Your task to perform on an android device: Search for good Greek restaurants Image 0: 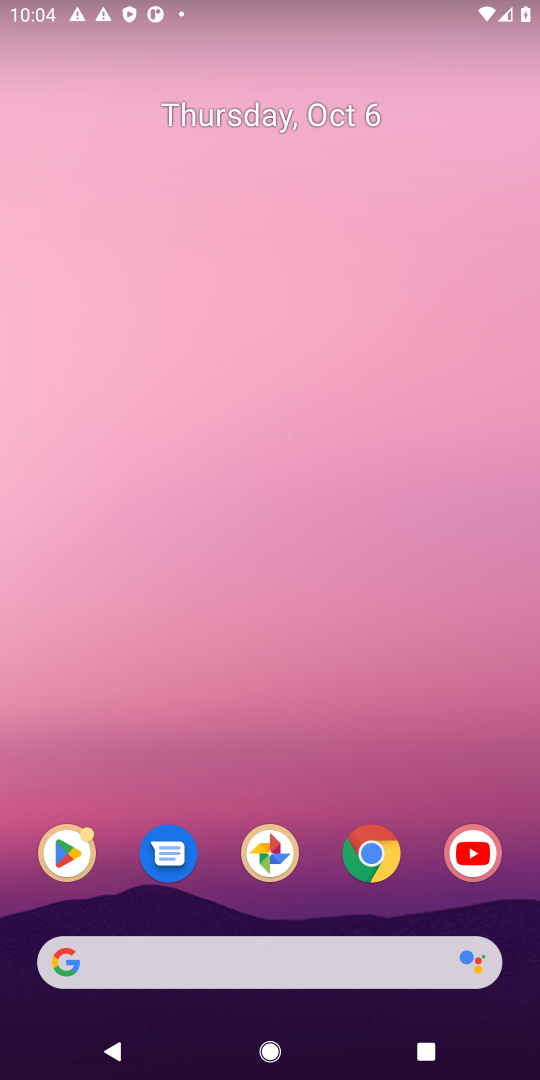
Step 0: click (271, 972)
Your task to perform on an android device: Search for good Greek restaurants Image 1: 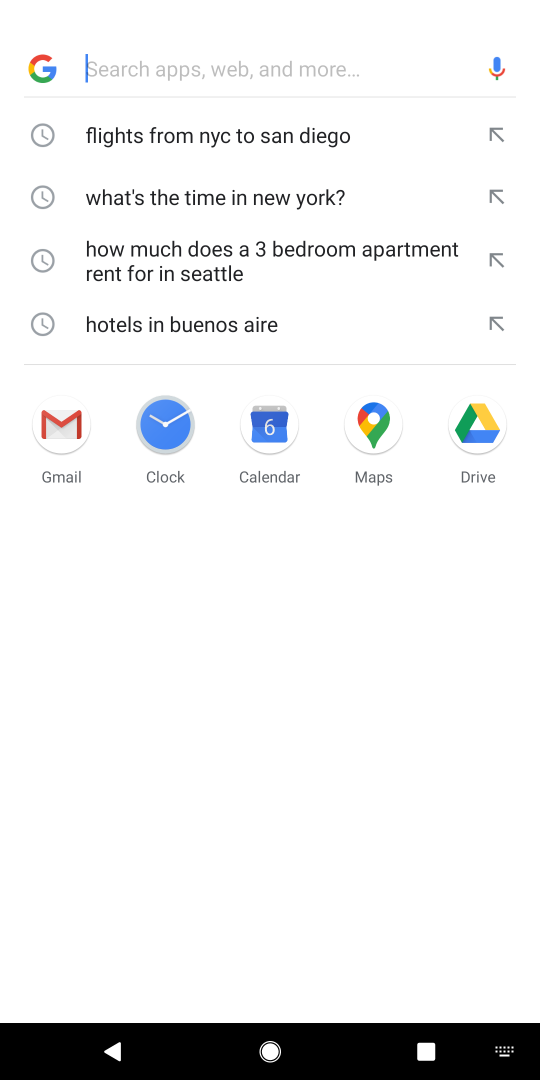
Step 1: type "good greek restaurants"
Your task to perform on an android device: Search for good Greek restaurants Image 2: 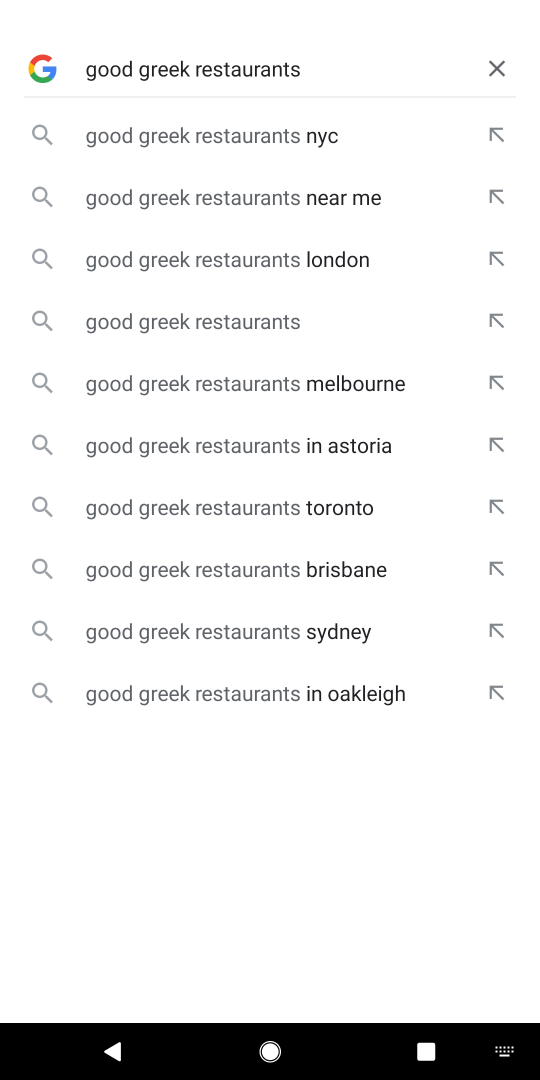
Step 2: type ""
Your task to perform on an android device: Search for good Greek restaurants Image 3: 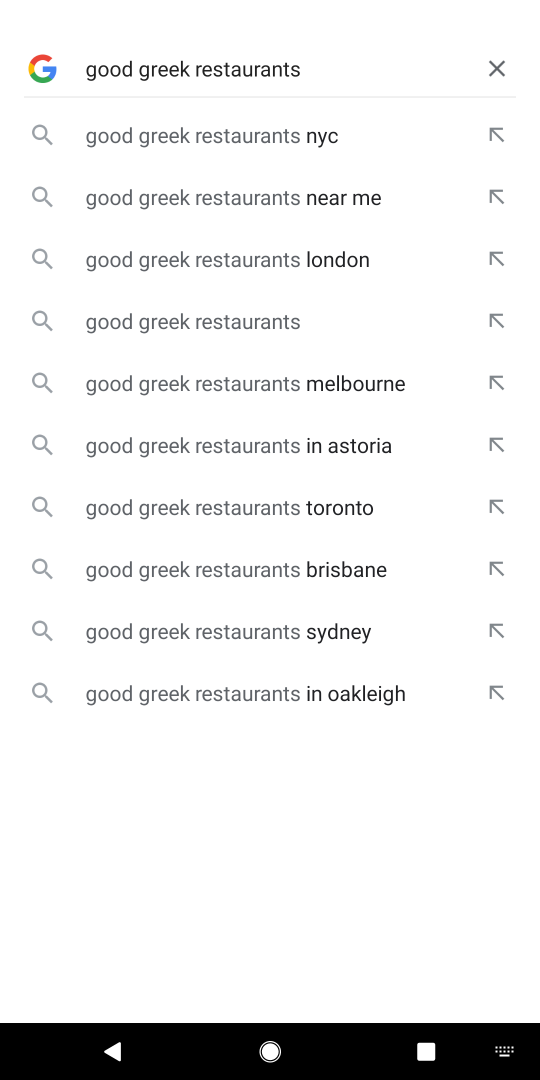
Step 3: click (239, 323)
Your task to perform on an android device: Search for good Greek restaurants Image 4: 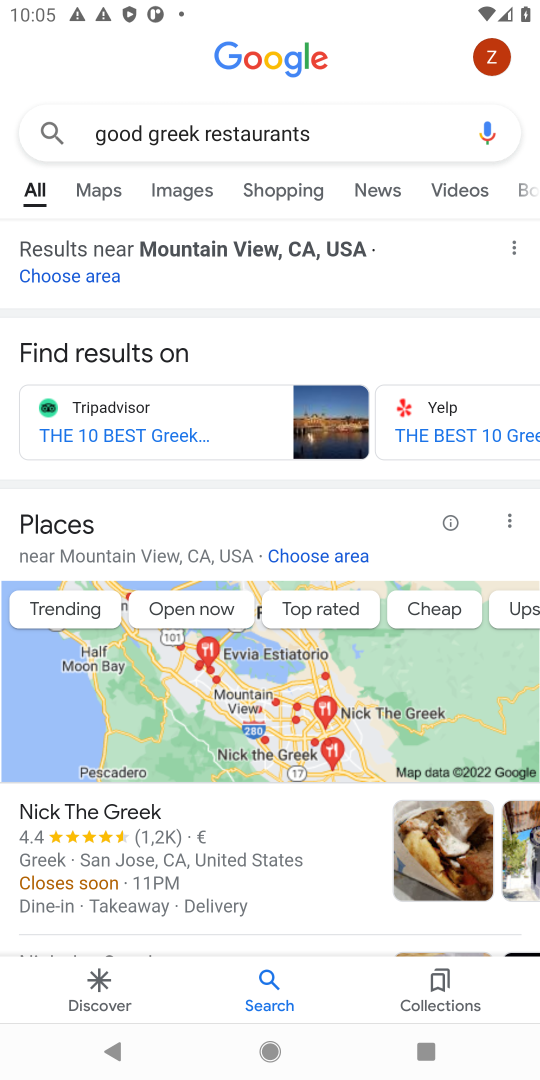
Step 4: click (239, 323)
Your task to perform on an android device: Search for good Greek restaurants Image 5: 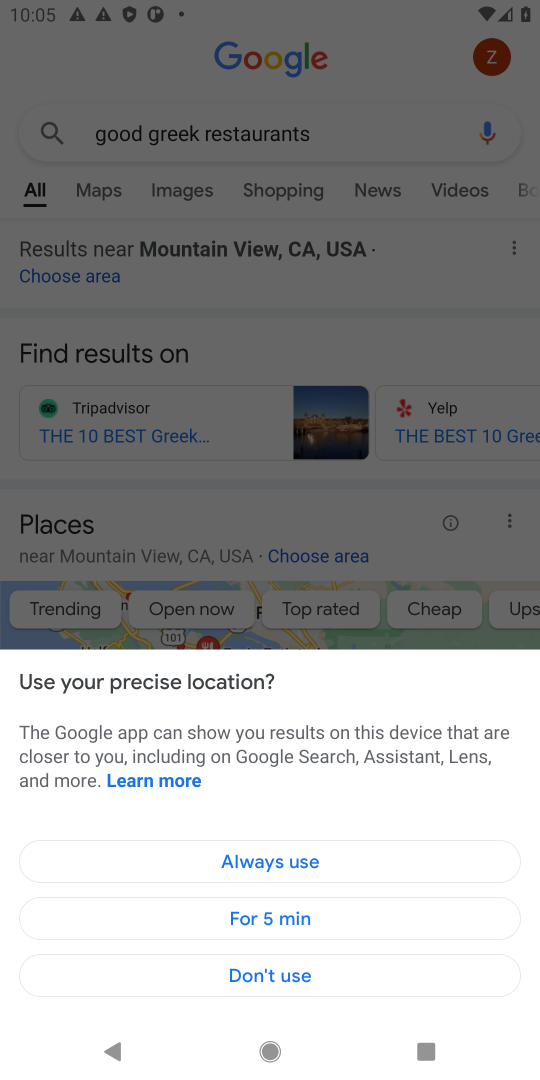
Step 5: drag from (329, 838) to (350, 729)
Your task to perform on an android device: Search for good Greek restaurants Image 6: 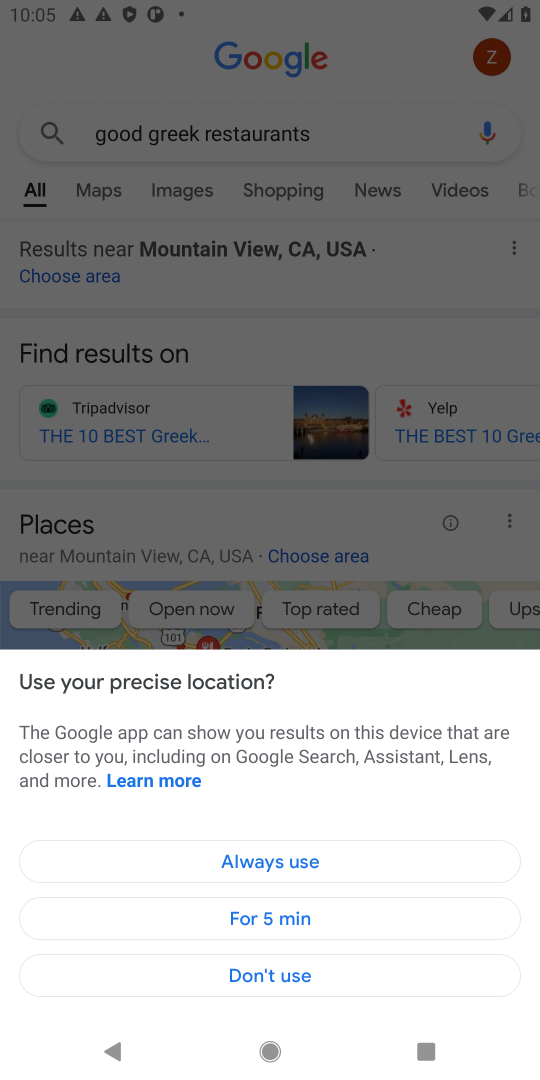
Step 6: click (308, 972)
Your task to perform on an android device: Search for good Greek restaurants Image 7: 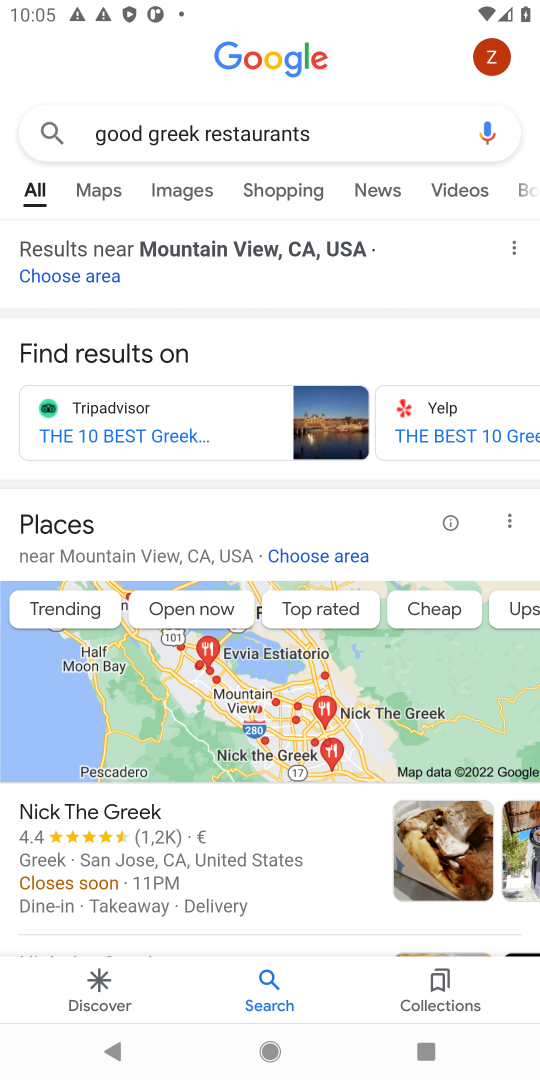
Step 7: drag from (305, 854) to (302, 321)
Your task to perform on an android device: Search for good Greek restaurants Image 8: 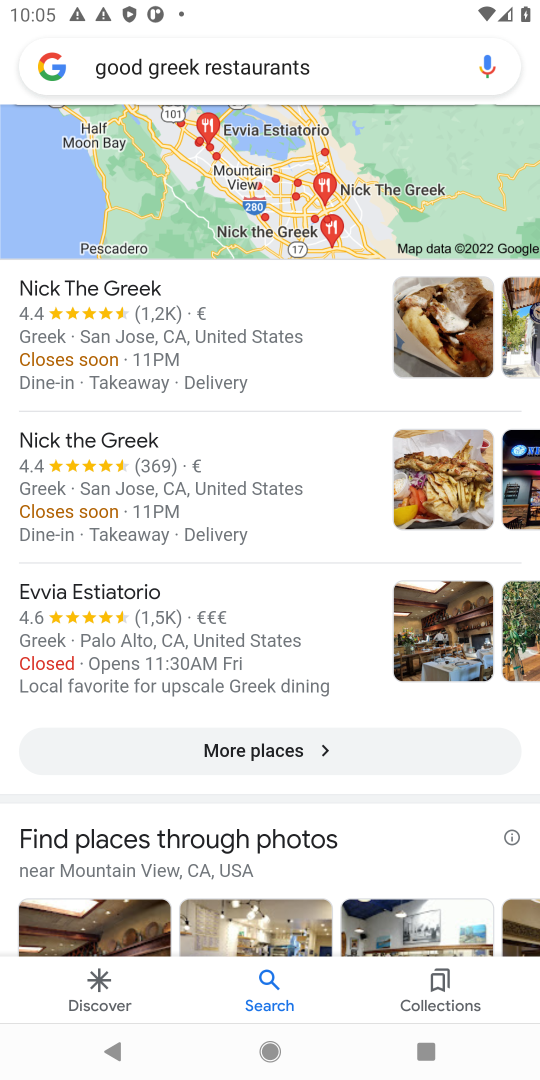
Step 8: drag from (326, 837) to (325, 356)
Your task to perform on an android device: Search for good Greek restaurants Image 9: 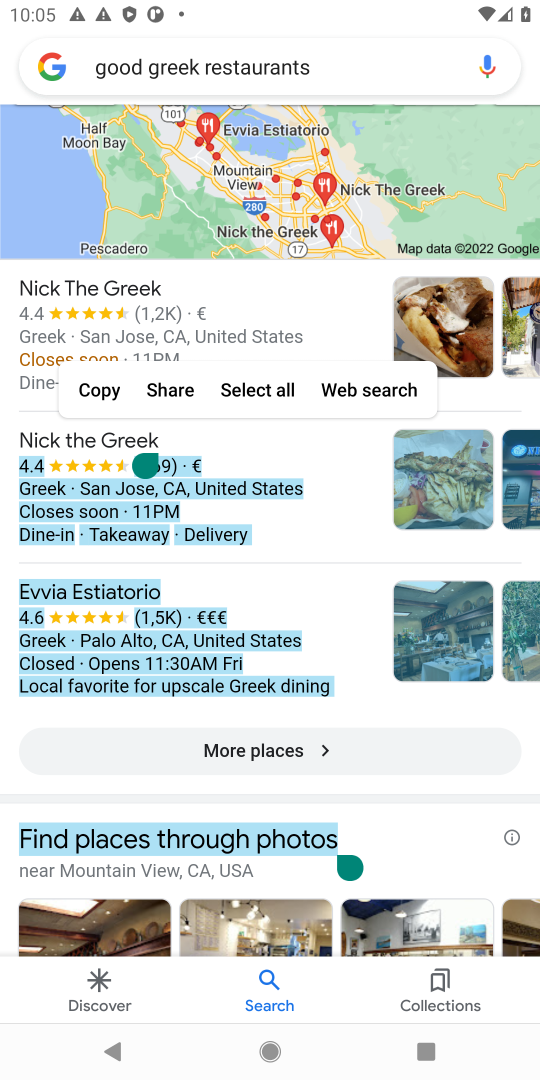
Step 9: drag from (354, 701) to (364, 365)
Your task to perform on an android device: Search for good Greek restaurants Image 10: 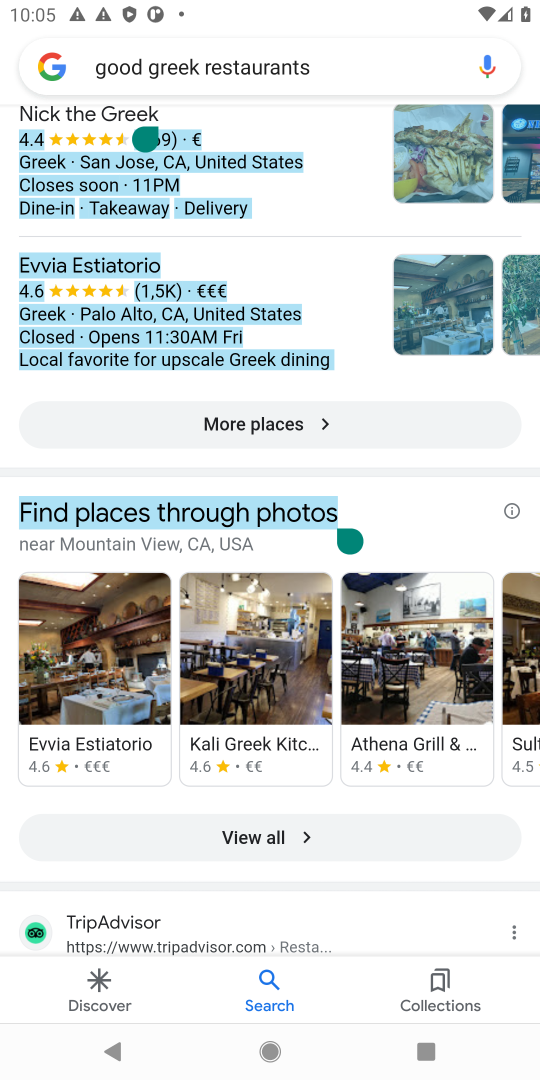
Step 10: click (385, 512)
Your task to perform on an android device: Search for good Greek restaurants Image 11: 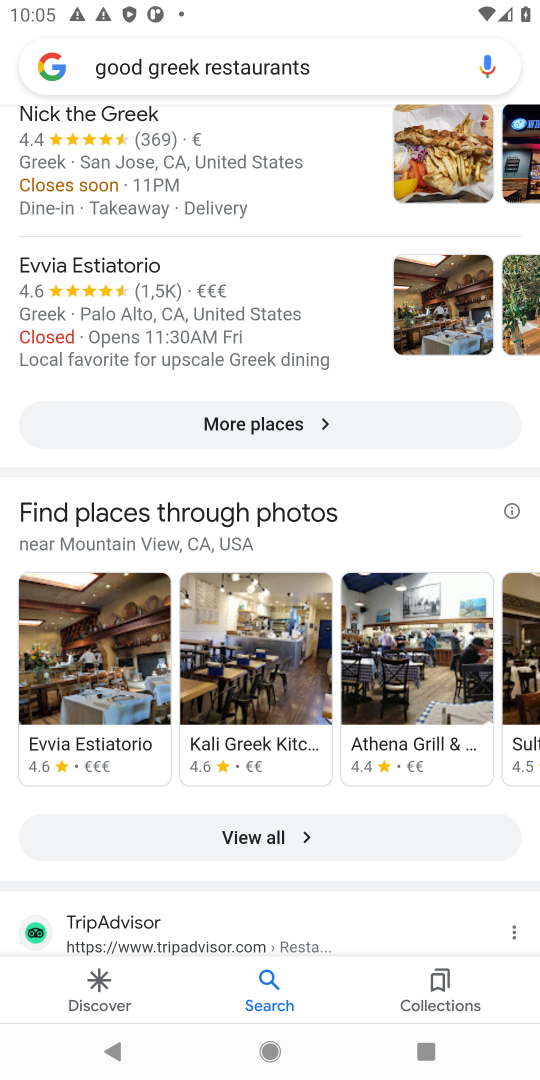
Step 11: click (355, 857)
Your task to perform on an android device: Search for good Greek restaurants Image 12: 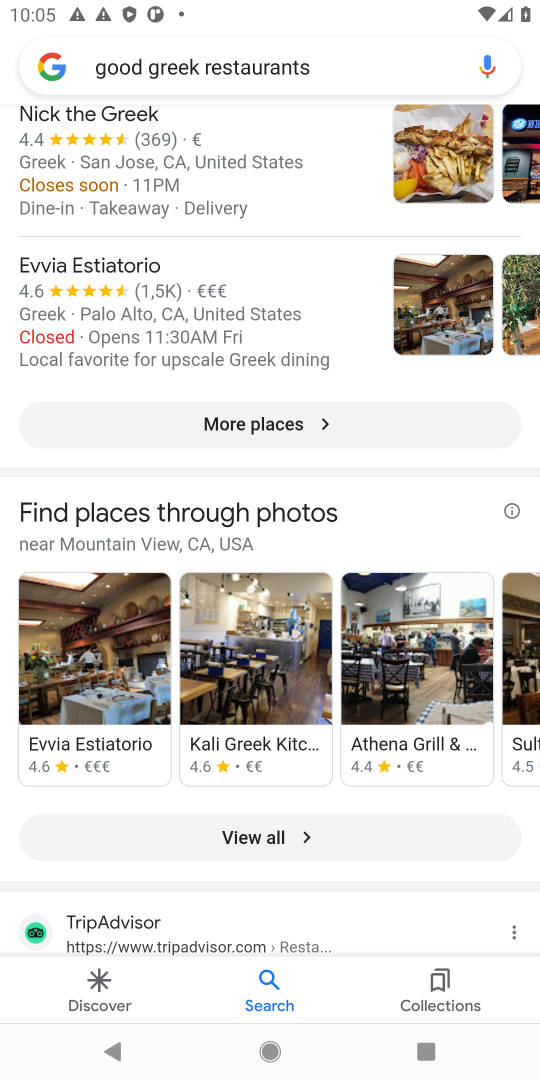
Step 12: task complete